Your task to perform on an android device: open app "Pluto TV - Live TV and Movies" Image 0: 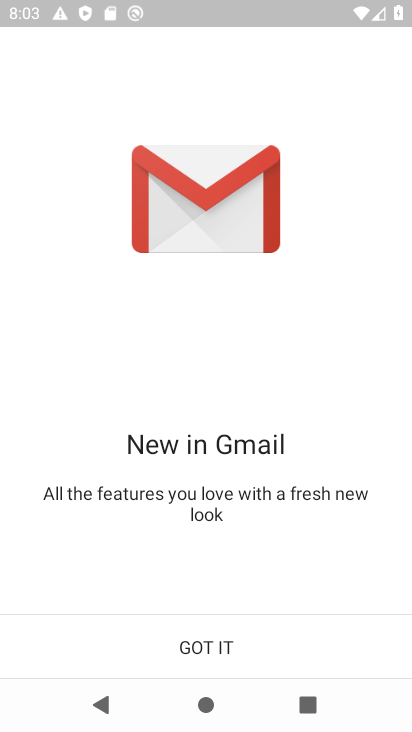
Step 0: press home button
Your task to perform on an android device: open app "Pluto TV - Live TV and Movies" Image 1: 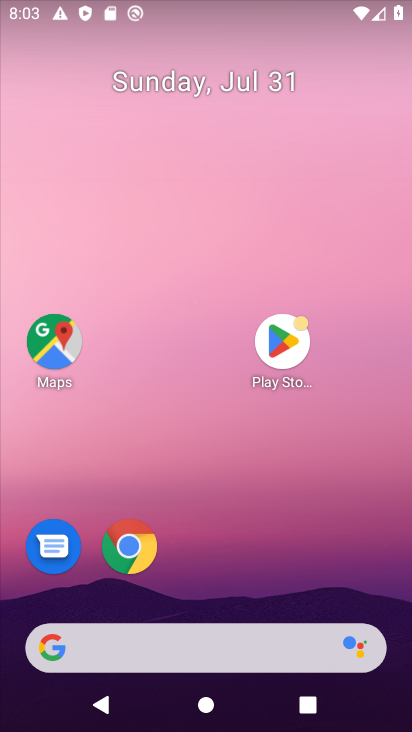
Step 1: click (278, 337)
Your task to perform on an android device: open app "Pluto TV - Live TV and Movies" Image 2: 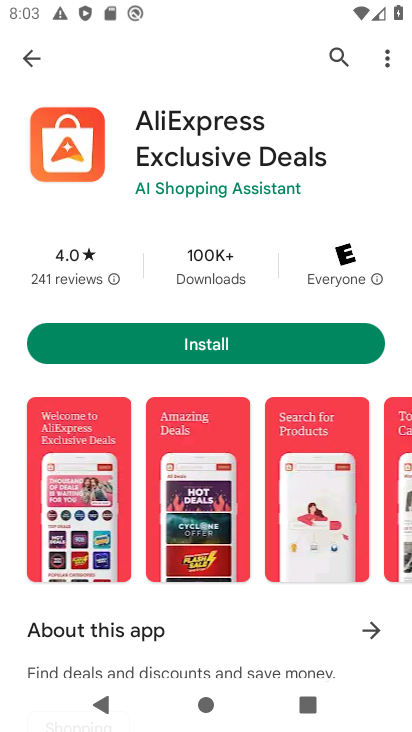
Step 2: click (333, 54)
Your task to perform on an android device: open app "Pluto TV - Live TV and Movies" Image 3: 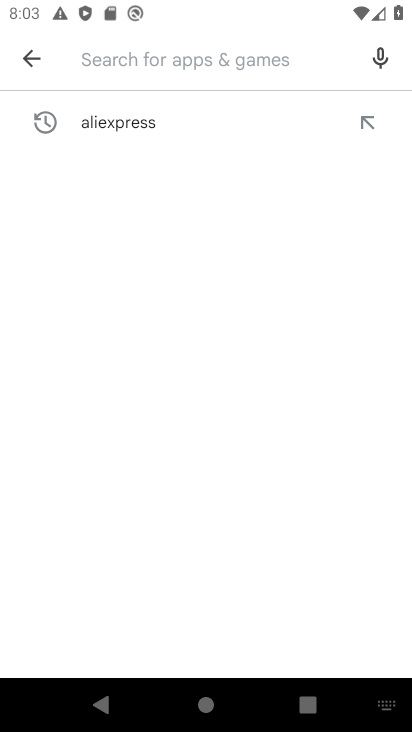
Step 3: type "Pluto TV - Live TV and Movies"
Your task to perform on an android device: open app "Pluto TV - Live TV and Movies" Image 4: 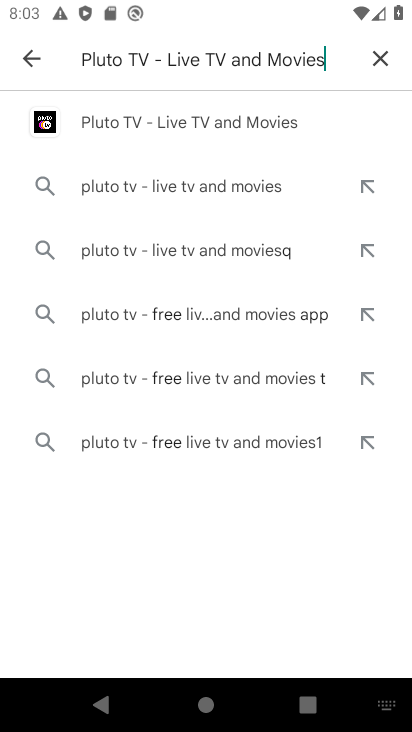
Step 4: click (230, 123)
Your task to perform on an android device: open app "Pluto TV - Live TV and Movies" Image 5: 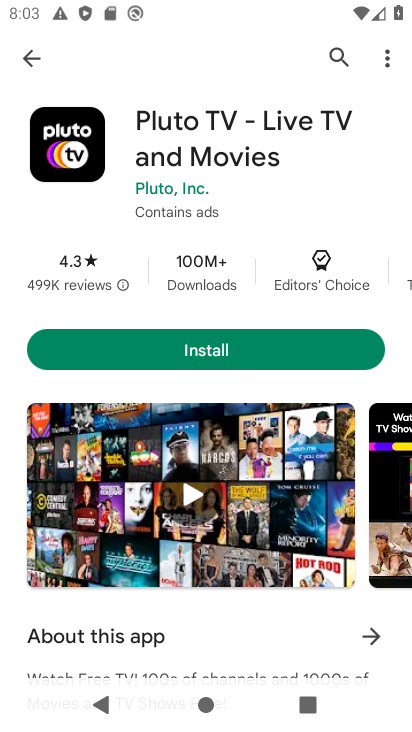
Step 5: task complete